Your task to perform on an android device: Go to Maps Image 0: 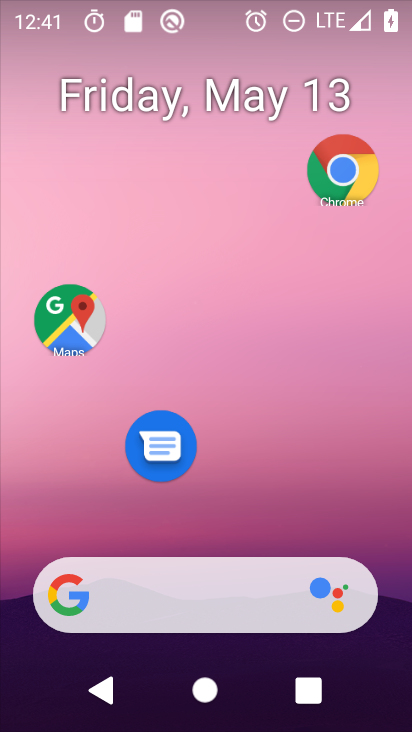
Step 0: drag from (193, 564) to (199, 19)
Your task to perform on an android device: Go to Maps Image 1: 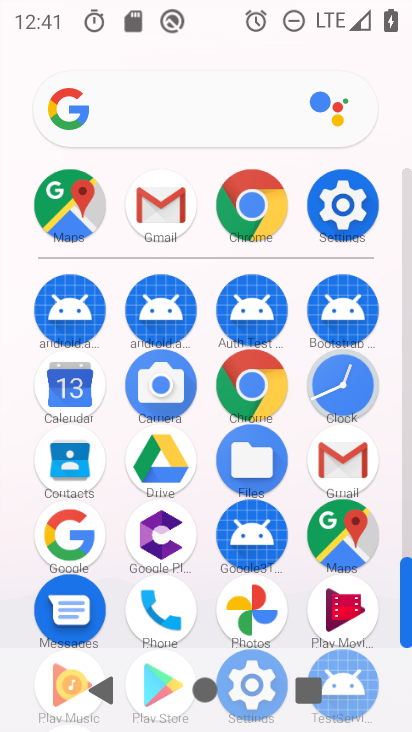
Step 1: click (338, 547)
Your task to perform on an android device: Go to Maps Image 2: 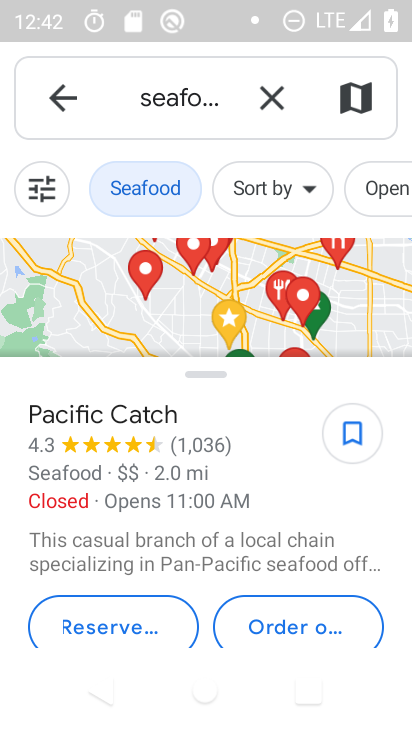
Step 2: task complete